Your task to perform on an android device: Go to network settings Image 0: 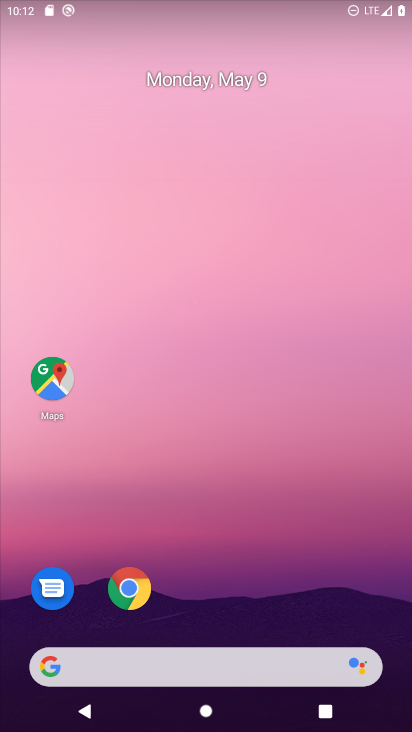
Step 0: drag from (225, 602) to (174, 8)
Your task to perform on an android device: Go to network settings Image 1: 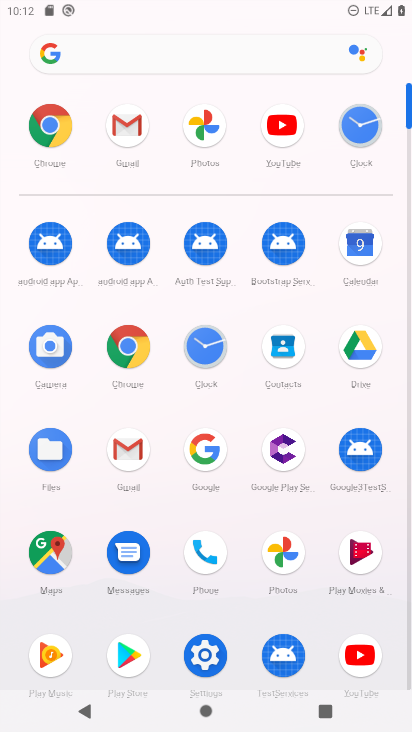
Step 1: click (208, 667)
Your task to perform on an android device: Go to network settings Image 2: 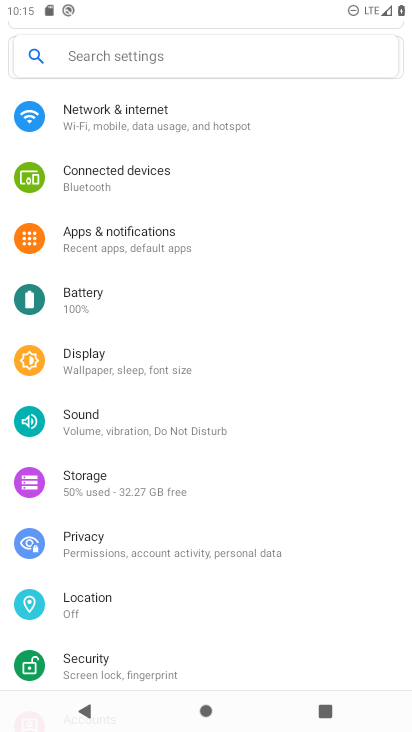
Step 2: click (151, 122)
Your task to perform on an android device: Go to network settings Image 3: 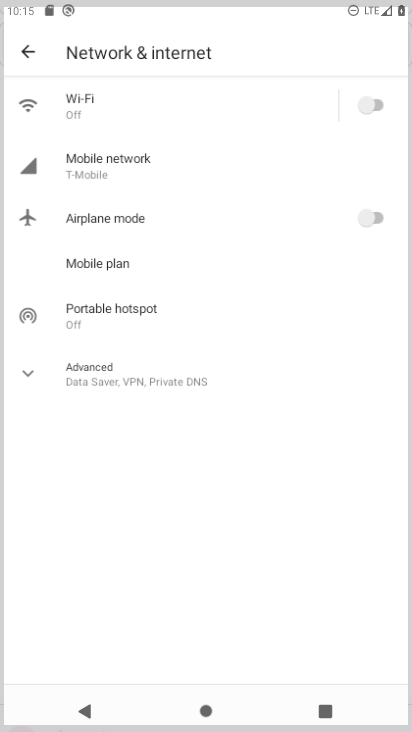
Step 3: task complete